Your task to perform on an android device: Go to location settings Image 0: 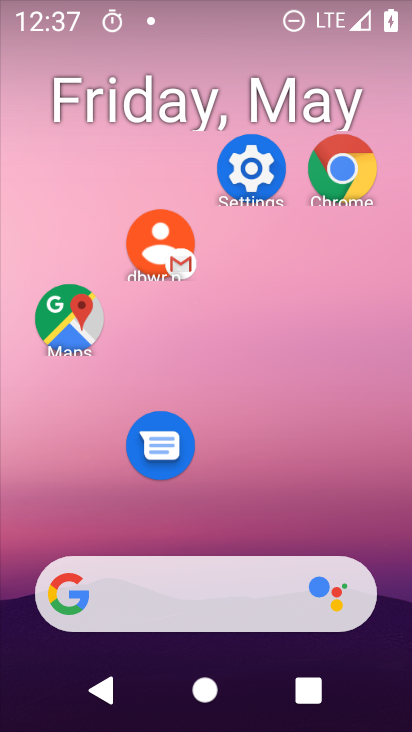
Step 0: drag from (275, 520) to (231, 29)
Your task to perform on an android device: Go to location settings Image 1: 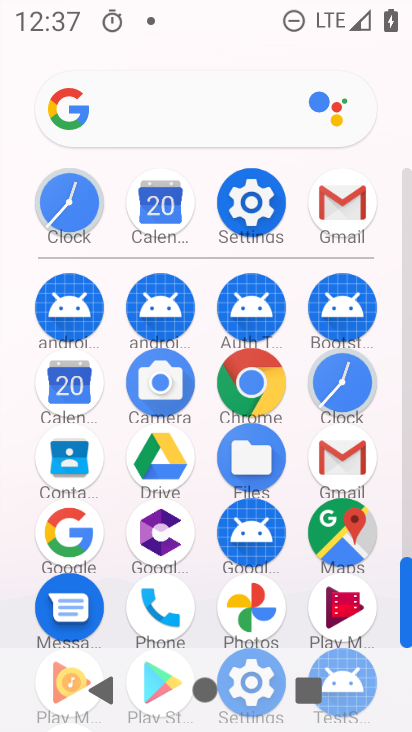
Step 1: click (246, 191)
Your task to perform on an android device: Go to location settings Image 2: 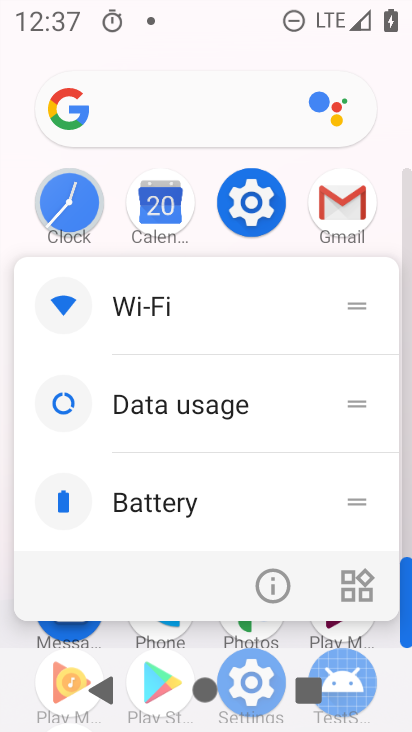
Step 2: click (278, 572)
Your task to perform on an android device: Go to location settings Image 3: 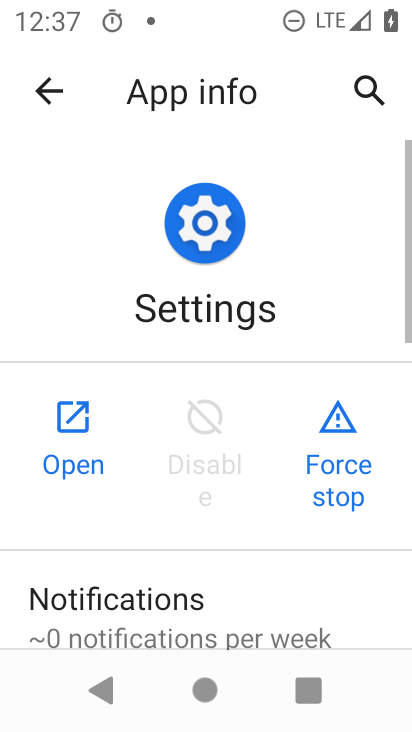
Step 3: click (80, 443)
Your task to perform on an android device: Go to location settings Image 4: 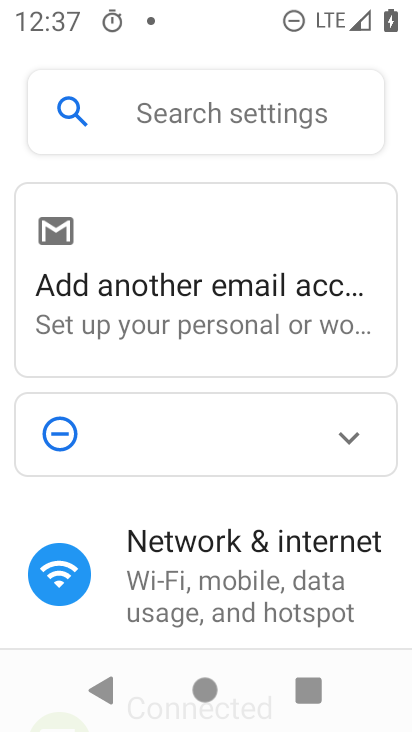
Step 4: drag from (260, 600) to (306, 110)
Your task to perform on an android device: Go to location settings Image 5: 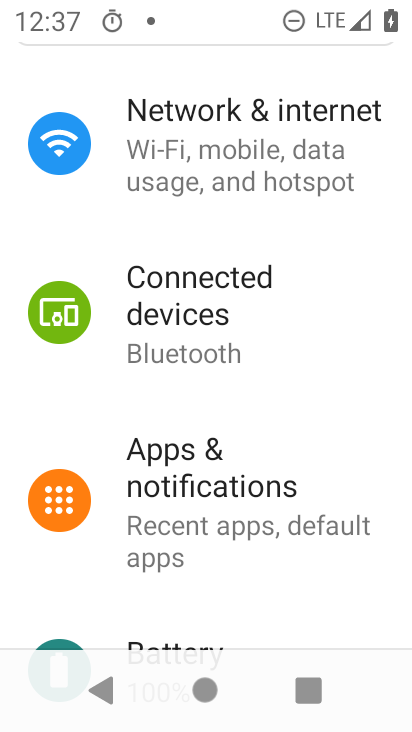
Step 5: drag from (233, 586) to (267, 222)
Your task to perform on an android device: Go to location settings Image 6: 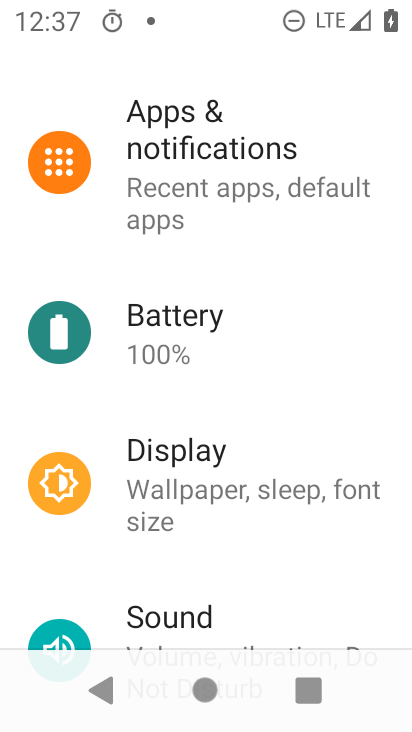
Step 6: drag from (251, 631) to (275, 231)
Your task to perform on an android device: Go to location settings Image 7: 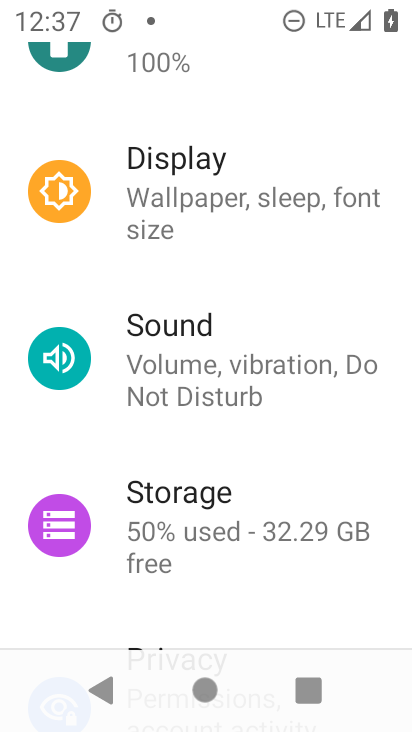
Step 7: drag from (223, 572) to (297, 92)
Your task to perform on an android device: Go to location settings Image 8: 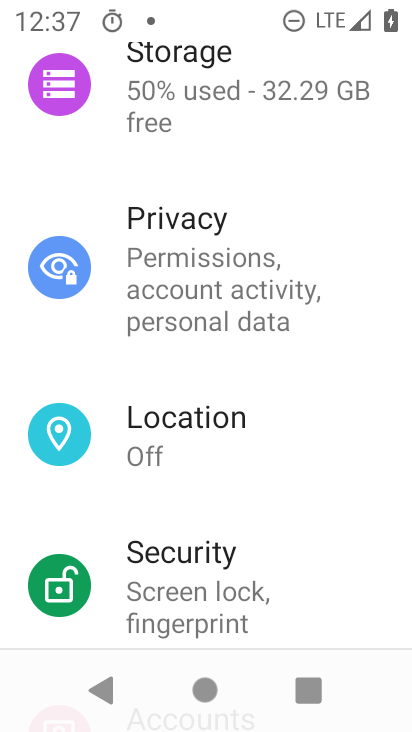
Step 8: click (172, 440)
Your task to perform on an android device: Go to location settings Image 9: 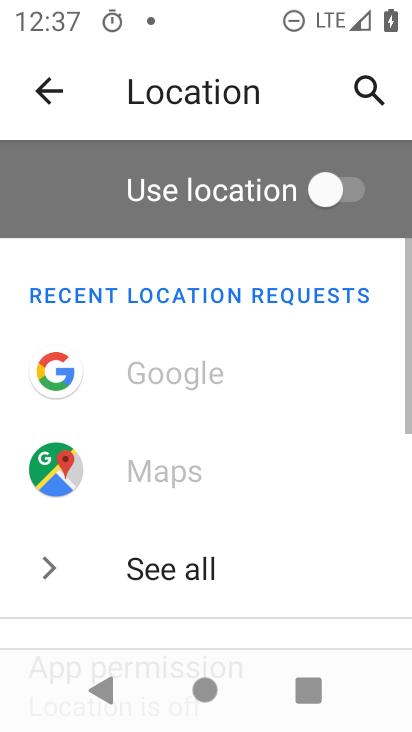
Step 9: drag from (262, 471) to (319, 58)
Your task to perform on an android device: Go to location settings Image 10: 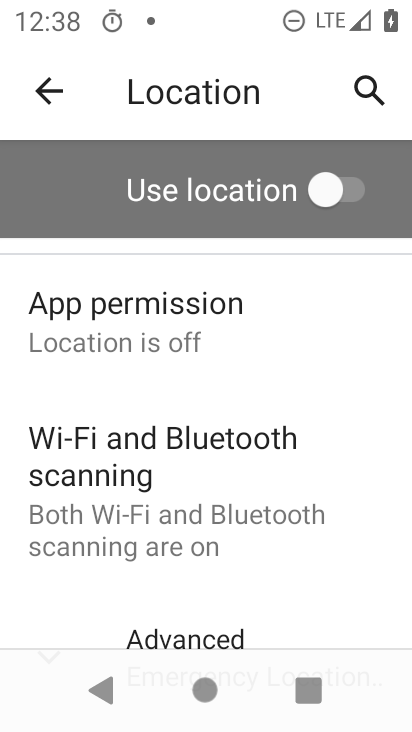
Step 10: drag from (233, 559) to (246, 236)
Your task to perform on an android device: Go to location settings Image 11: 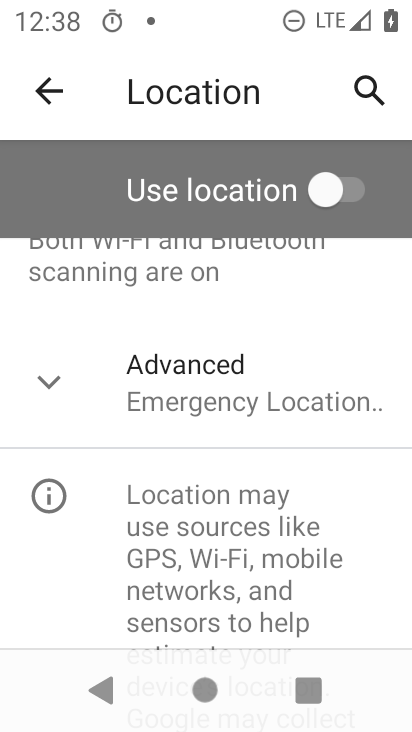
Step 11: click (184, 398)
Your task to perform on an android device: Go to location settings Image 12: 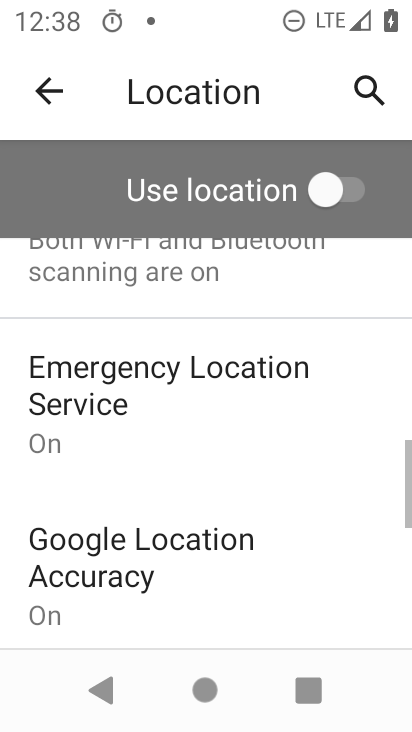
Step 12: task complete